Your task to perform on an android device: toggle show notifications on the lock screen Image 0: 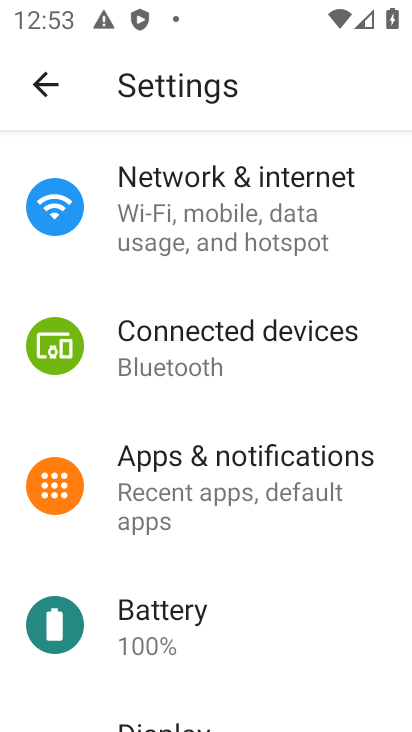
Step 0: click (251, 475)
Your task to perform on an android device: toggle show notifications on the lock screen Image 1: 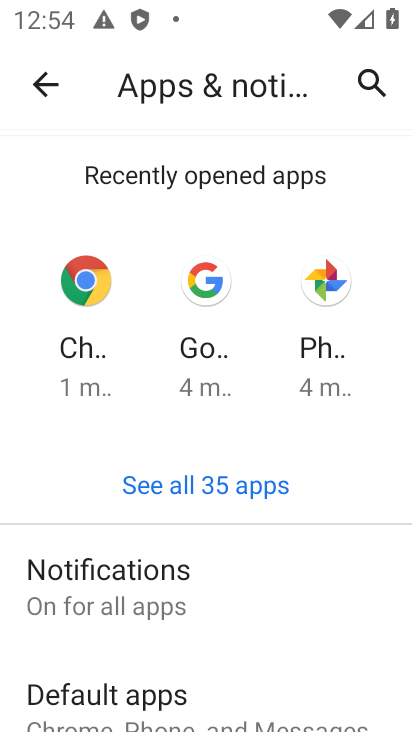
Step 1: drag from (287, 602) to (365, 81)
Your task to perform on an android device: toggle show notifications on the lock screen Image 2: 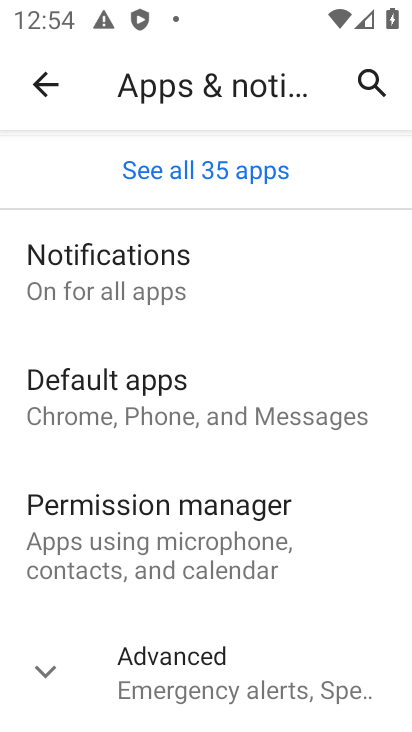
Step 2: click (176, 262)
Your task to perform on an android device: toggle show notifications on the lock screen Image 3: 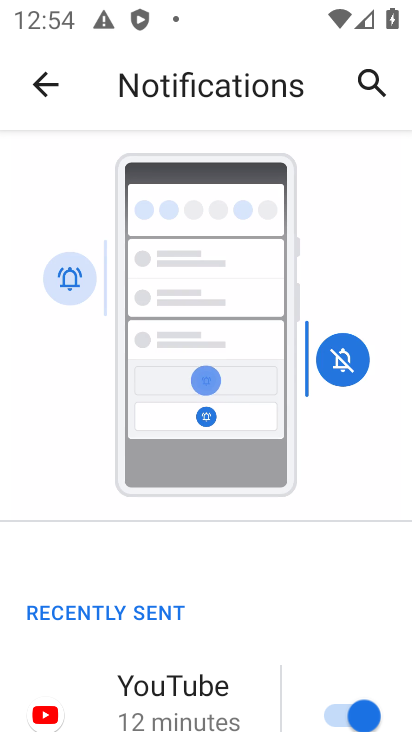
Step 3: drag from (236, 611) to (343, 0)
Your task to perform on an android device: toggle show notifications on the lock screen Image 4: 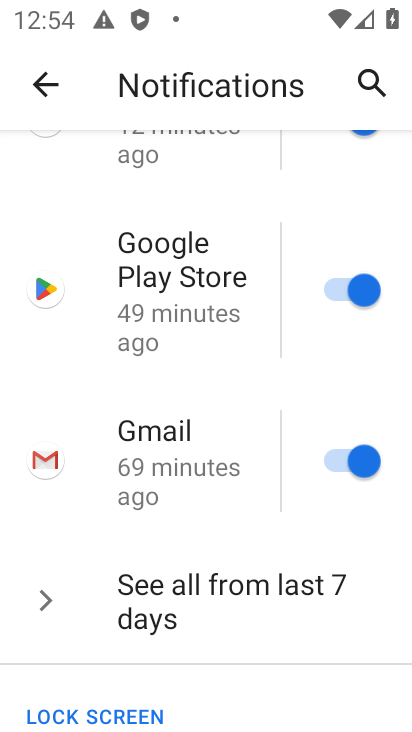
Step 4: drag from (245, 659) to (294, 141)
Your task to perform on an android device: toggle show notifications on the lock screen Image 5: 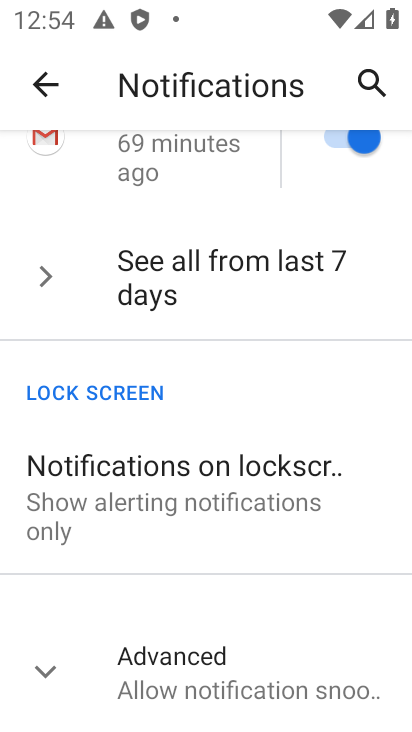
Step 5: click (207, 475)
Your task to perform on an android device: toggle show notifications on the lock screen Image 6: 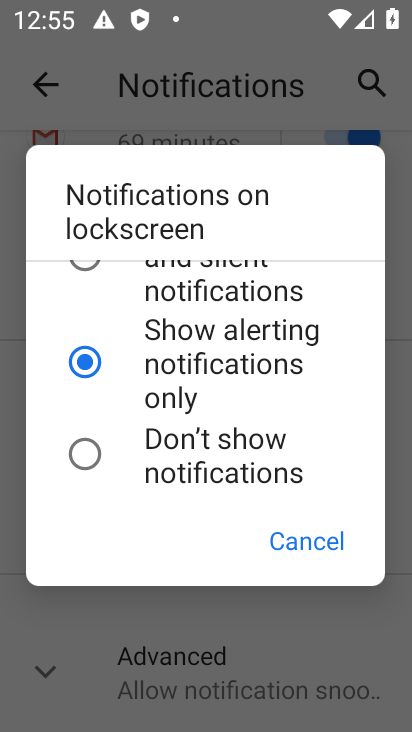
Step 6: click (137, 470)
Your task to perform on an android device: toggle show notifications on the lock screen Image 7: 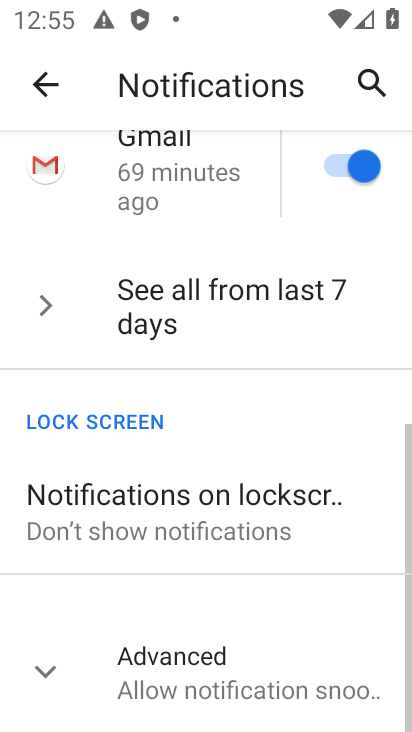
Step 7: task complete